Your task to perform on an android device: check out phone information Image 0: 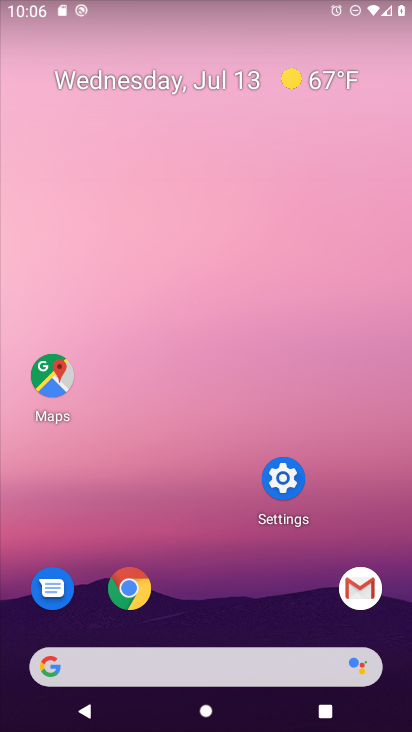
Step 0: press home button
Your task to perform on an android device: check out phone information Image 1: 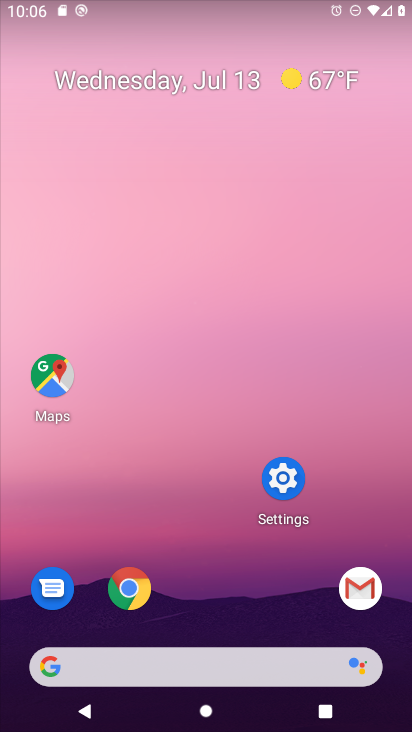
Step 1: click (283, 488)
Your task to perform on an android device: check out phone information Image 2: 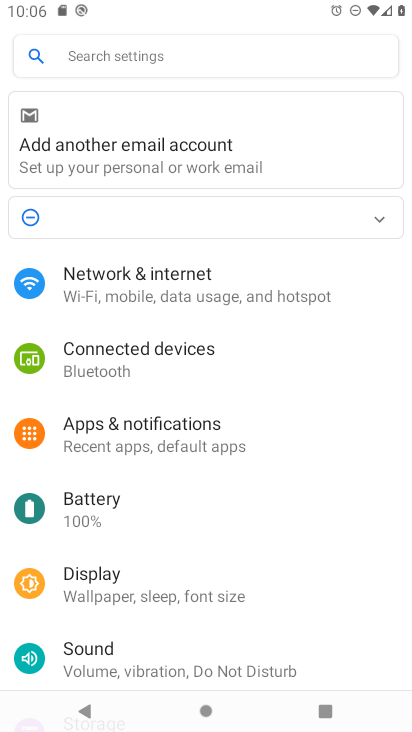
Step 2: click (81, 56)
Your task to perform on an android device: check out phone information Image 3: 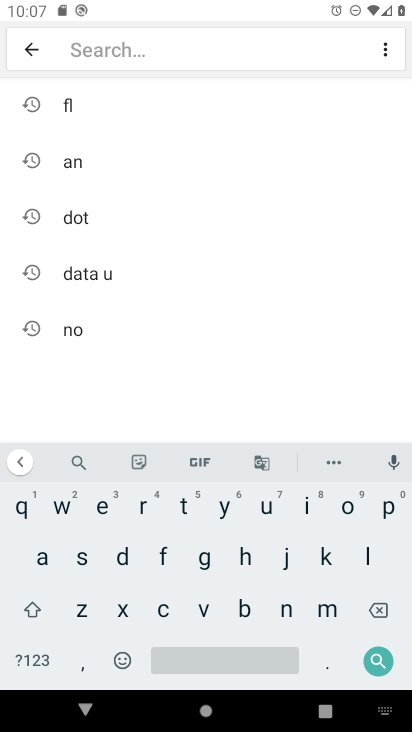
Step 3: click (32, 573)
Your task to perform on an android device: check out phone information Image 4: 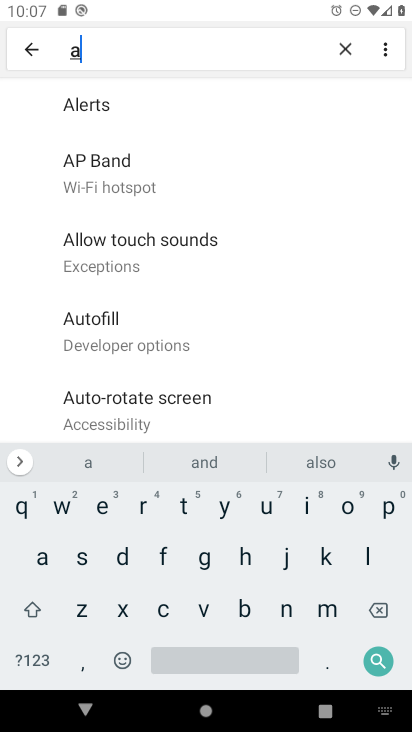
Step 4: click (247, 602)
Your task to perform on an android device: check out phone information Image 5: 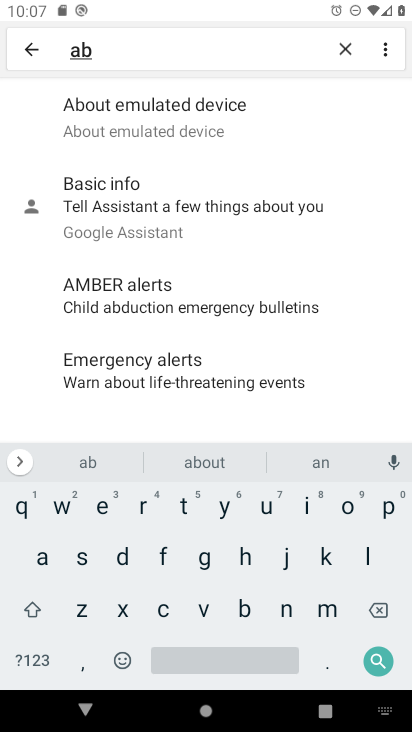
Step 5: click (160, 100)
Your task to perform on an android device: check out phone information Image 6: 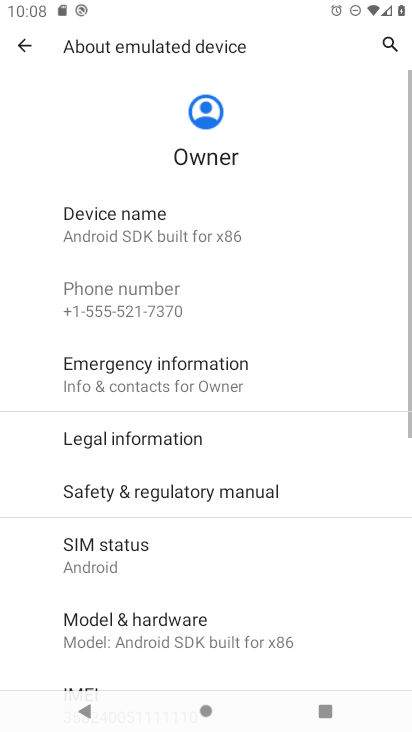
Step 6: task complete